Your task to perform on an android device: Go to Android settings Image 0: 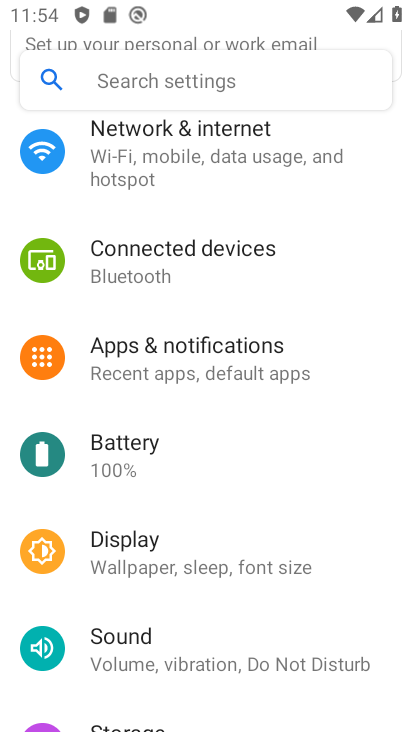
Step 0: drag from (259, 652) to (312, 142)
Your task to perform on an android device: Go to Android settings Image 1: 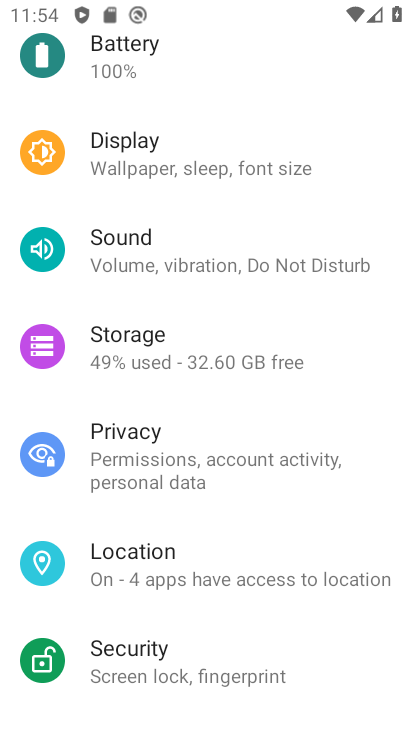
Step 1: drag from (191, 626) to (239, 171)
Your task to perform on an android device: Go to Android settings Image 2: 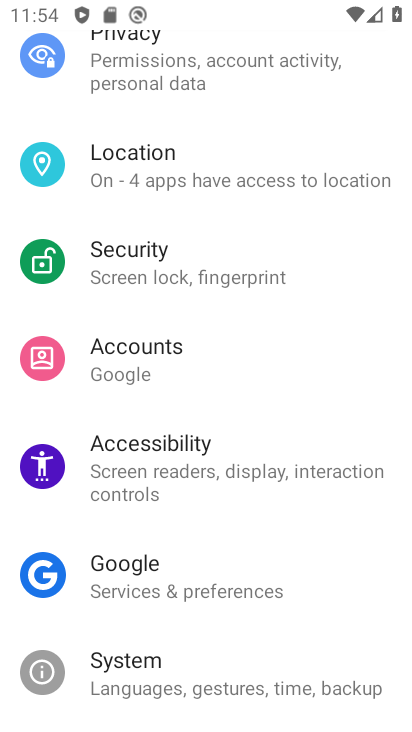
Step 2: drag from (174, 586) to (256, 134)
Your task to perform on an android device: Go to Android settings Image 3: 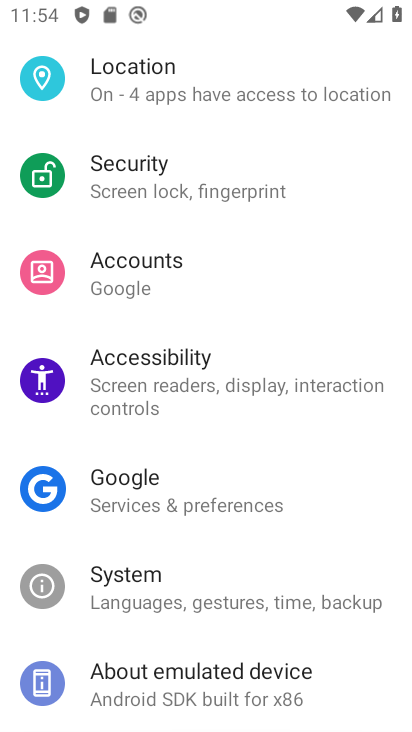
Step 3: click (171, 679)
Your task to perform on an android device: Go to Android settings Image 4: 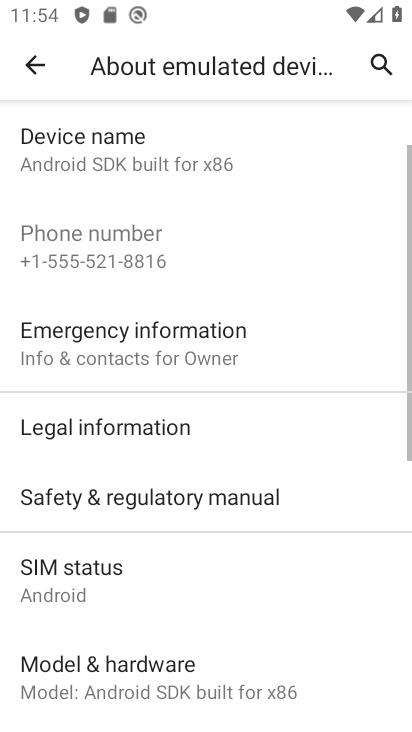
Step 4: drag from (171, 679) to (260, 190)
Your task to perform on an android device: Go to Android settings Image 5: 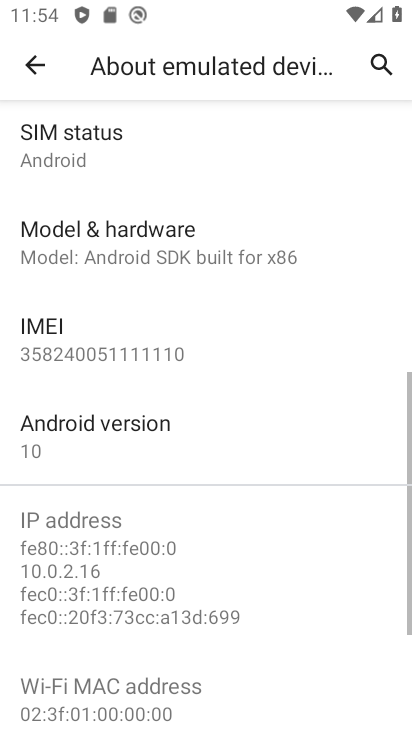
Step 5: click (115, 436)
Your task to perform on an android device: Go to Android settings Image 6: 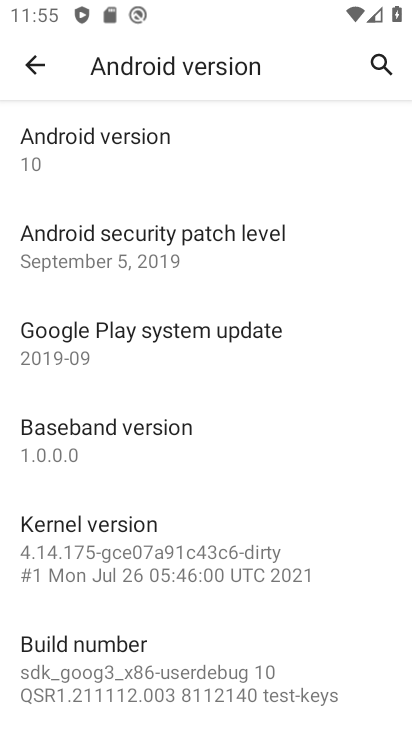
Step 6: click (167, 159)
Your task to perform on an android device: Go to Android settings Image 7: 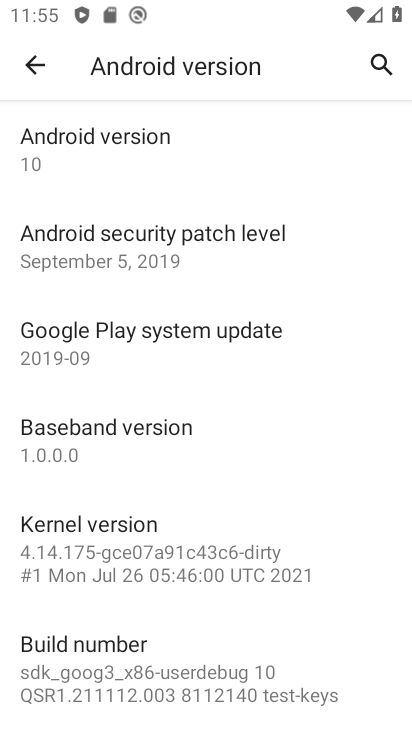
Step 7: click (106, 154)
Your task to perform on an android device: Go to Android settings Image 8: 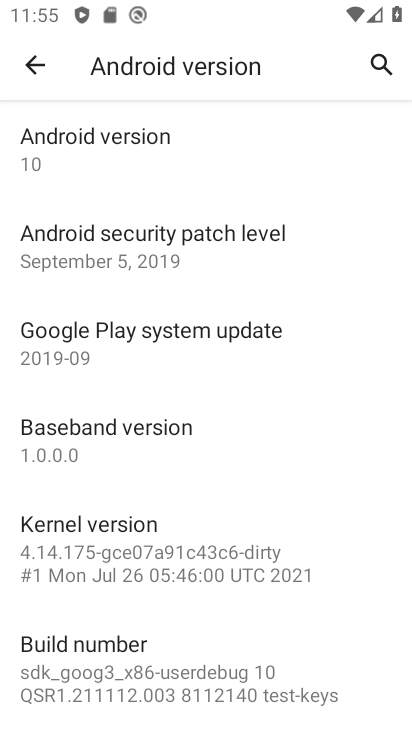
Step 8: task complete